Your task to perform on an android device: allow notifications from all sites in the chrome app Image 0: 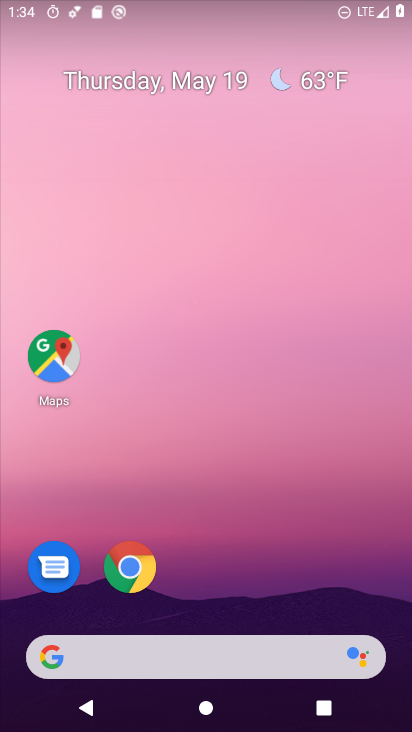
Step 0: press home button
Your task to perform on an android device: allow notifications from all sites in the chrome app Image 1: 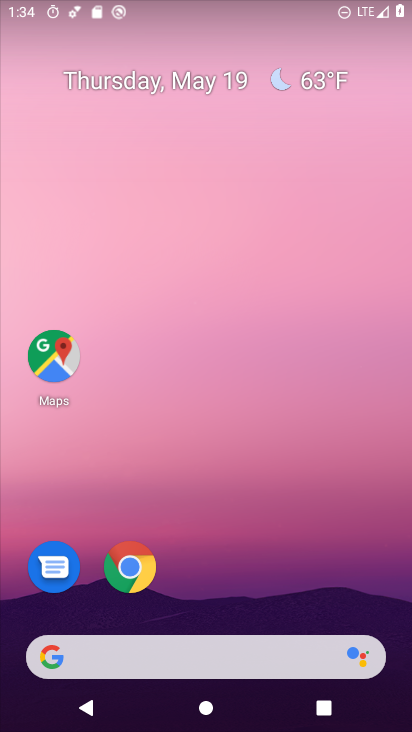
Step 1: click (140, 568)
Your task to perform on an android device: allow notifications from all sites in the chrome app Image 2: 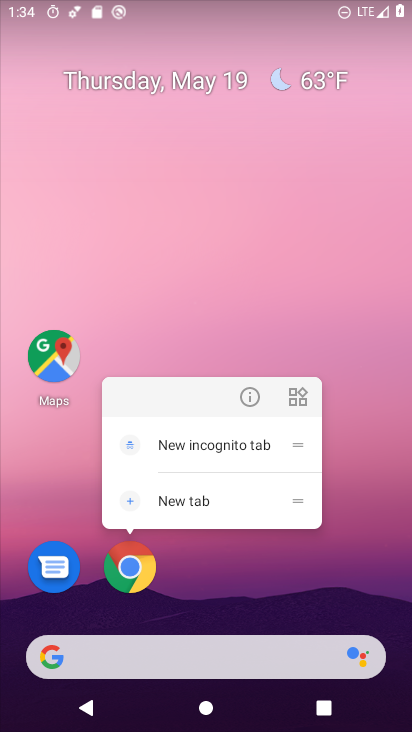
Step 2: click (140, 573)
Your task to perform on an android device: allow notifications from all sites in the chrome app Image 3: 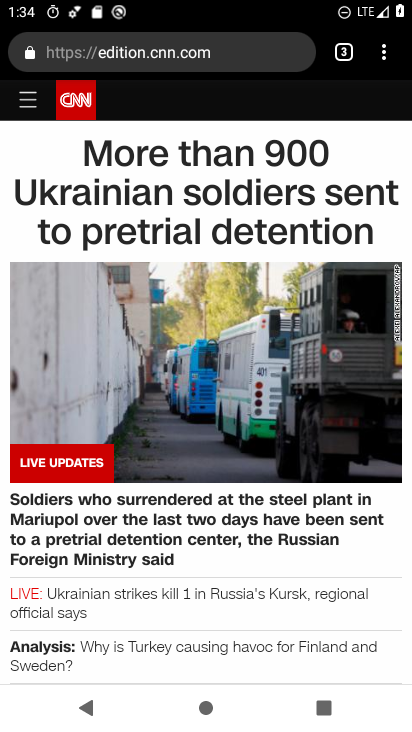
Step 3: drag from (387, 61) to (196, 585)
Your task to perform on an android device: allow notifications from all sites in the chrome app Image 4: 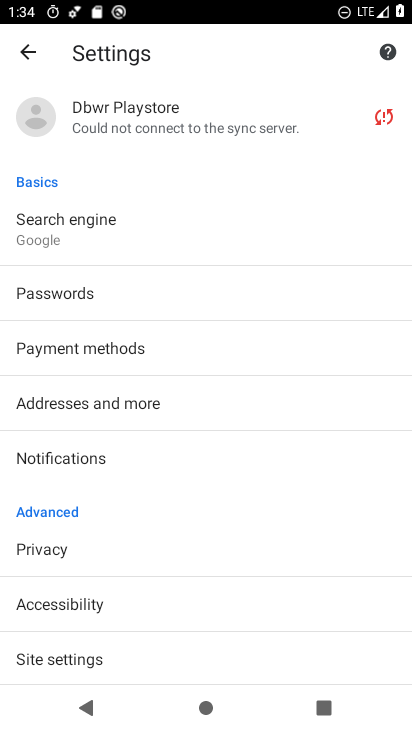
Step 4: click (83, 660)
Your task to perform on an android device: allow notifications from all sites in the chrome app Image 5: 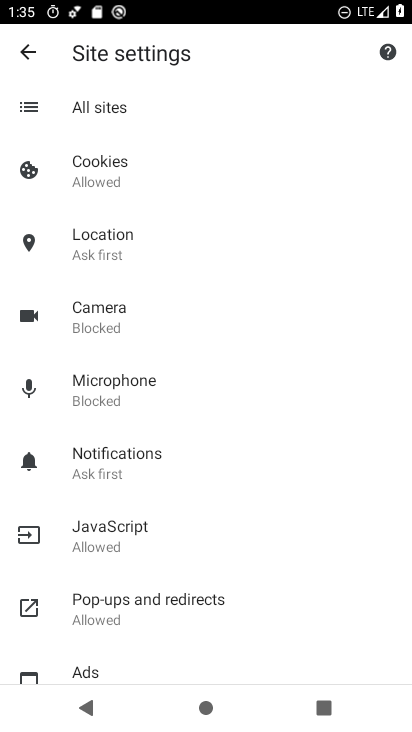
Step 5: drag from (200, 547) to (251, 388)
Your task to perform on an android device: allow notifications from all sites in the chrome app Image 6: 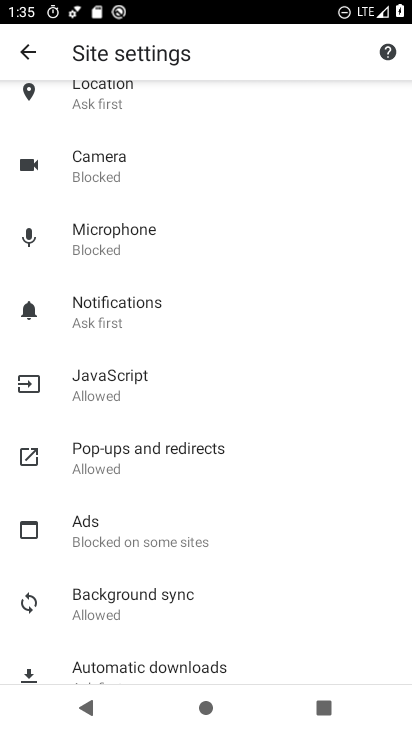
Step 6: click (122, 309)
Your task to perform on an android device: allow notifications from all sites in the chrome app Image 7: 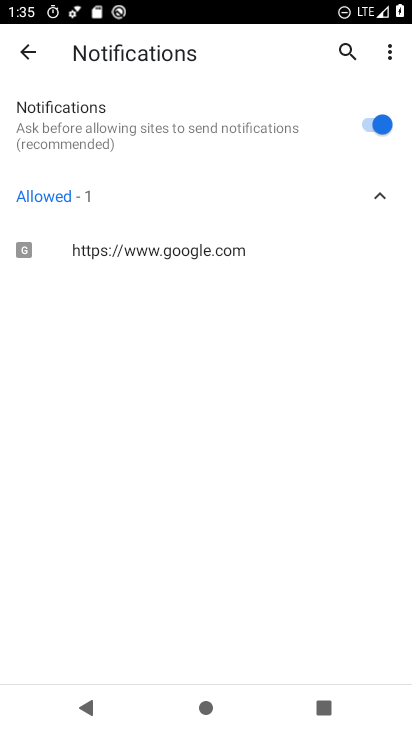
Step 7: task complete